Your task to perform on an android device: Open Android settings Image 0: 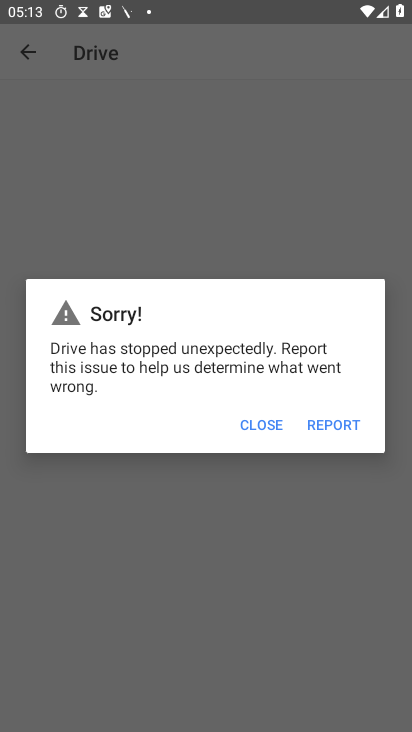
Step 0: press home button
Your task to perform on an android device: Open Android settings Image 1: 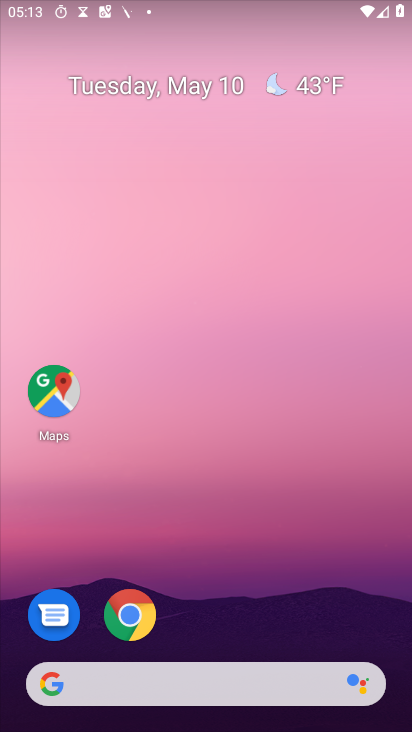
Step 1: drag from (282, 629) to (338, 111)
Your task to perform on an android device: Open Android settings Image 2: 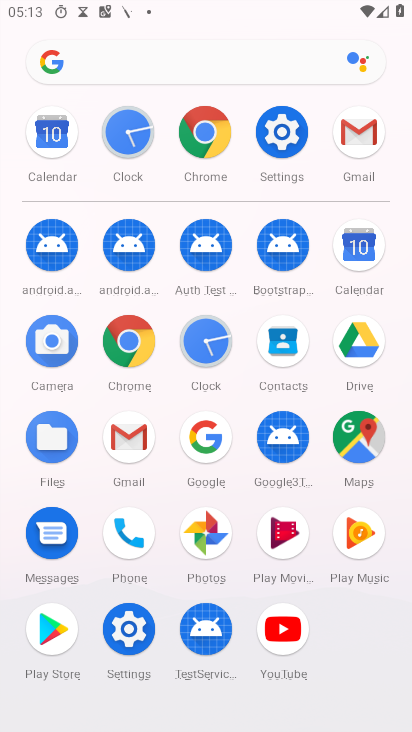
Step 2: click (276, 149)
Your task to perform on an android device: Open Android settings Image 3: 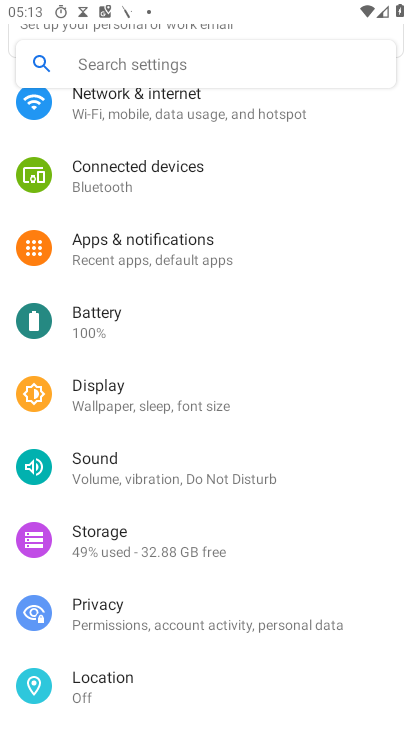
Step 3: drag from (197, 658) to (203, 100)
Your task to perform on an android device: Open Android settings Image 4: 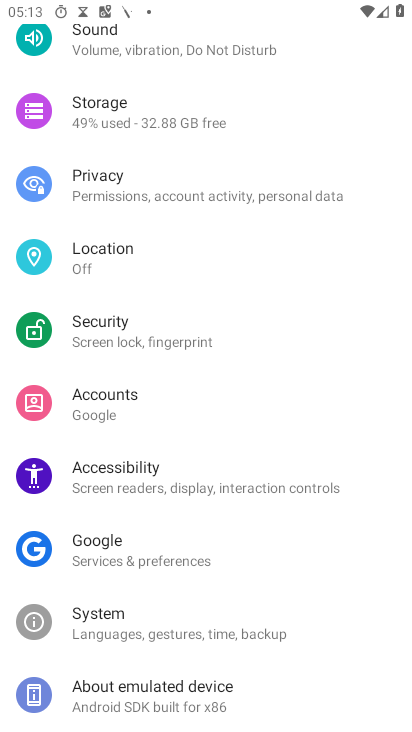
Step 4: click (207, 693)
Your task to perform on an android device: Open Android settings Image 5: 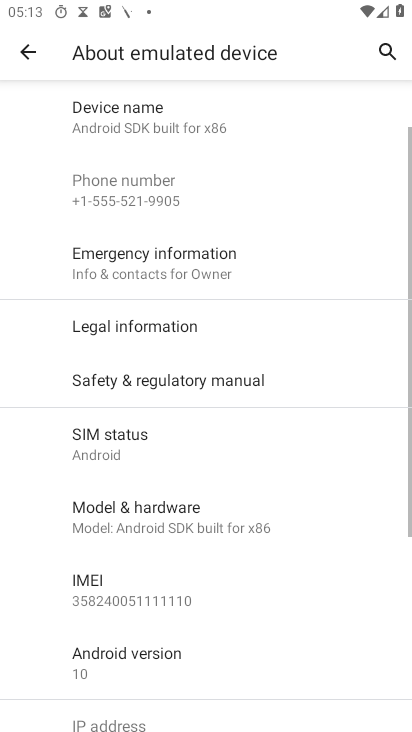
Step 5: drag from (180, 698) to (158, 403)
Your task to perform on an android device: Open Android settings Image 6: 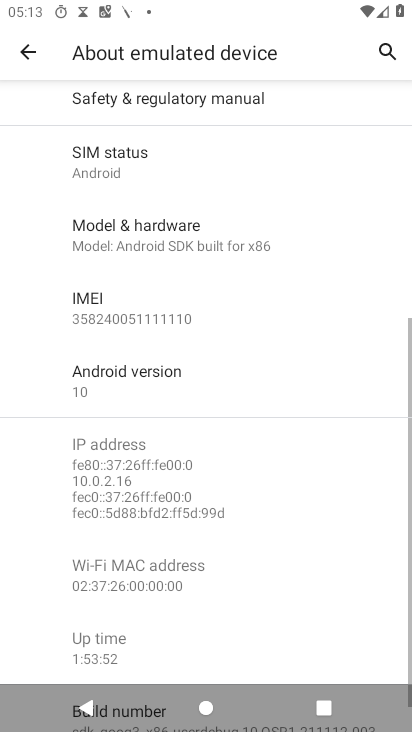
Step 6: click (145, 378)
Your task to perform on an android device: Open Android settings Image 7: 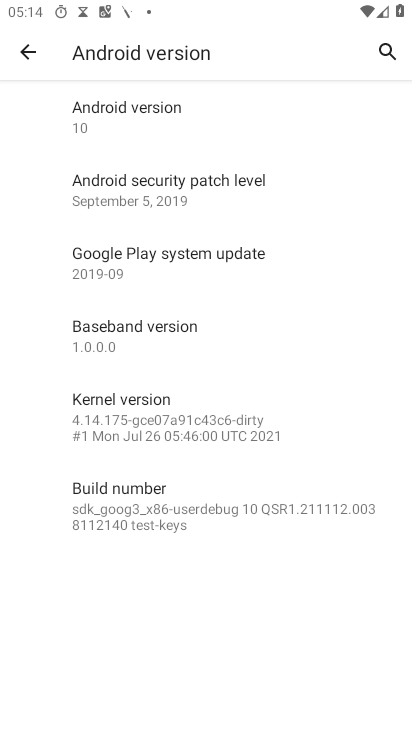
Step 7: task complete